Your task to perform on an android device: turn smart compose on in the gmail app Image 0: 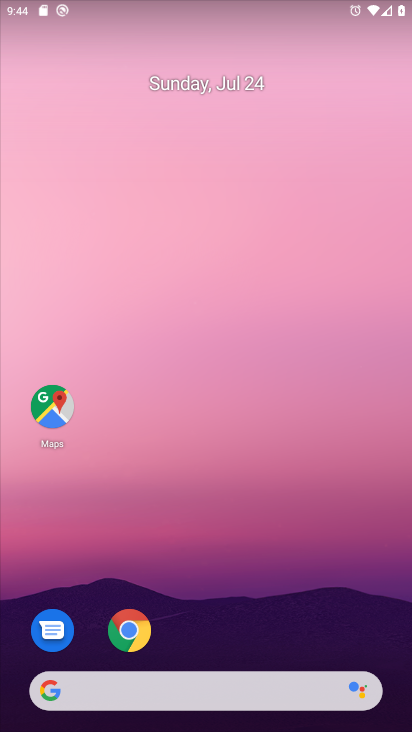
Step 0: drag from (174, 644) to (290, 4)
Your task to perform on an android device: turn smart compose on in the gmail app Image 1: 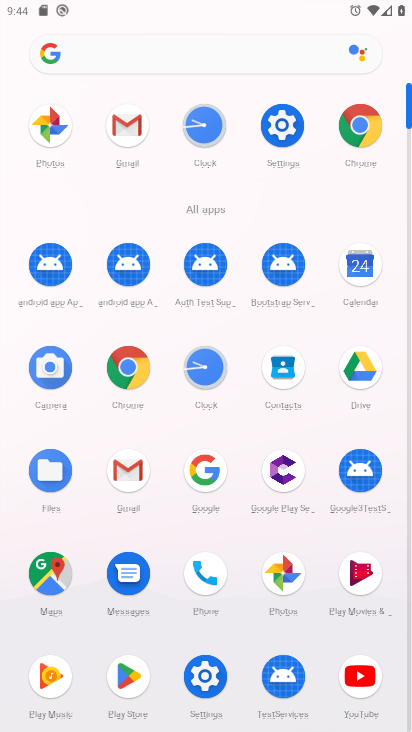
Step 1: click (122, 115)
Your task to perform on an android device: turn smart compose on in the gmail app Image 2: 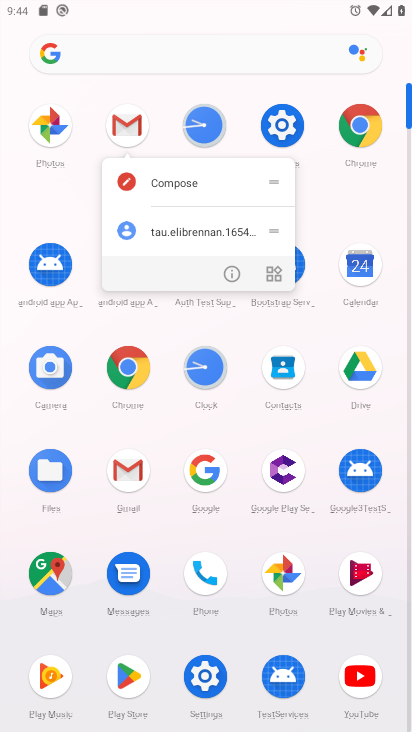
Step 2: click (125, 126)
Your task to perform on an android device: turn smart compose on in the gmail app Image 3: 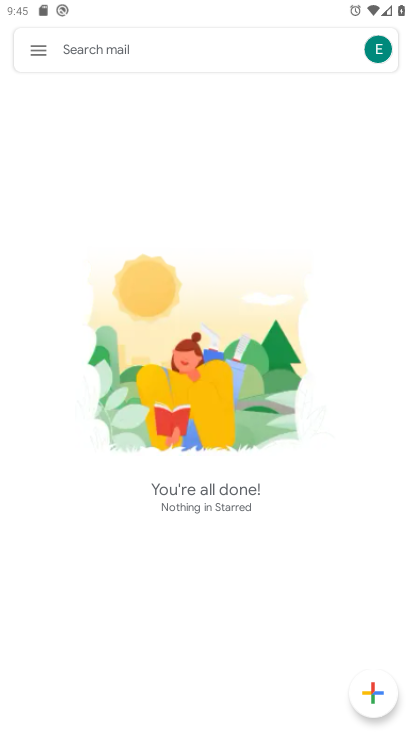
Step 3: click (25, 45)
Your task to perform on an android device: turn smart compose on in the gmail app Image 4: 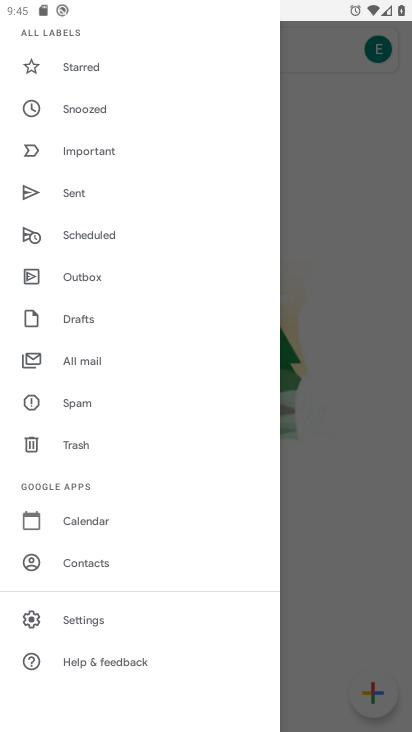
Step 4: click (82, 618)
Your task to perform on an android device: turn smart compose on in the gmail app Image 5: 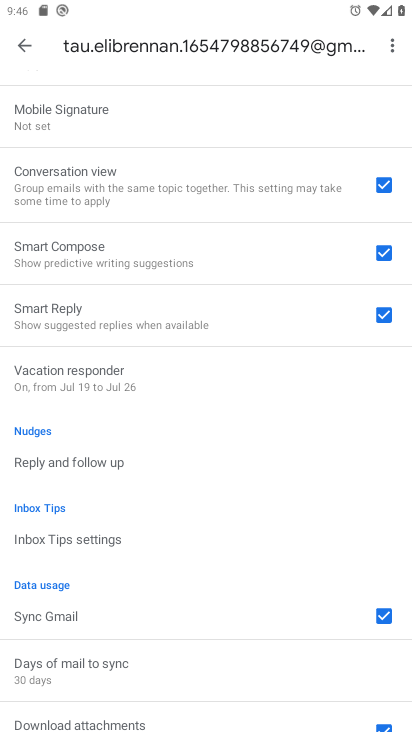
Step 5: task complete